Your task to perform on an android device: toggle sleep mode Image 0: 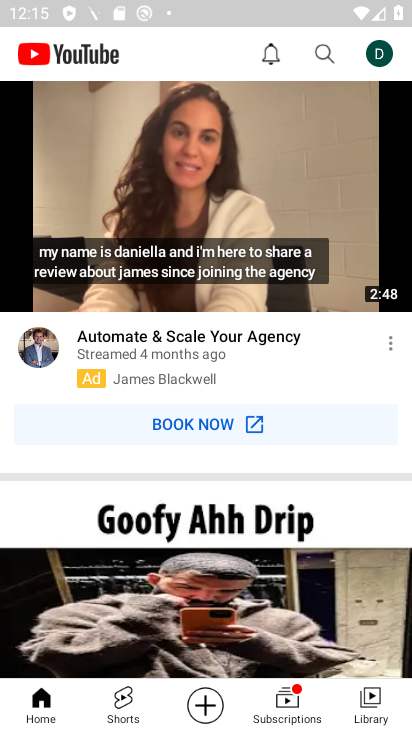
Step 0: press home button
Your task to perform on an android device: toggle sleep mode Image 1: 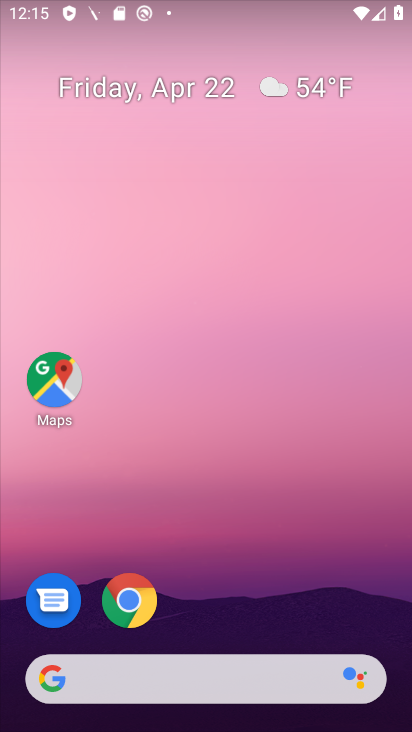
Step 1: click (389, 561)
Your task to perform on an android device: toggle sleep mode Image 2: 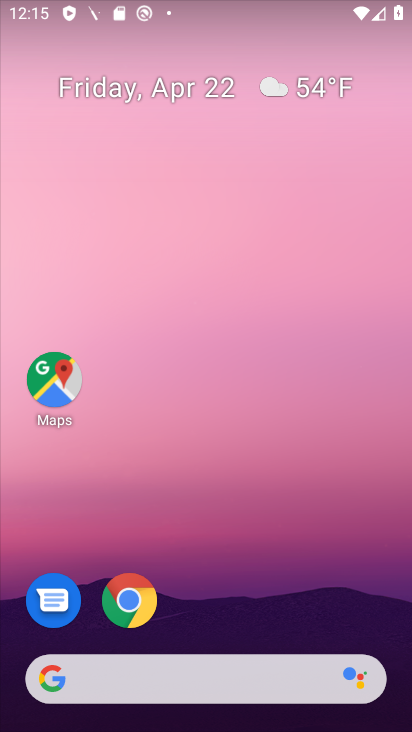
Step 2: drag from (394, 611) to (363, 142)
Your task to perform on an android device: toggle sleep mode Image 3: 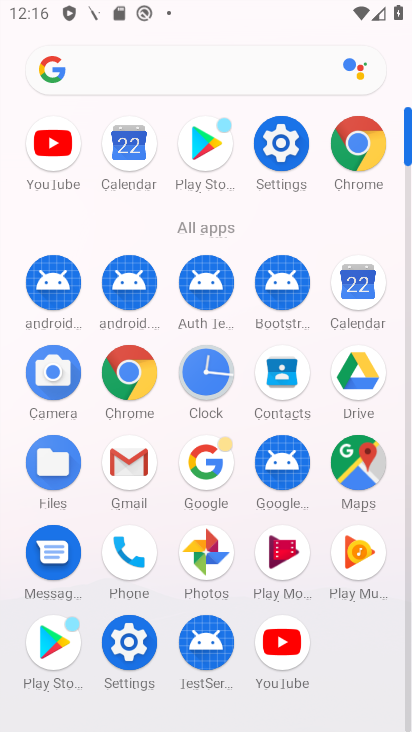
Step 3: click (280, 145)
Your task to perform on an android device: toggle sleep mode Image 4: 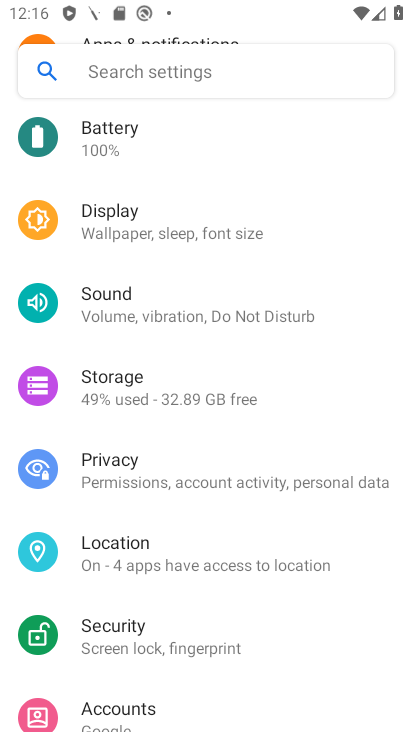
Step 4: drag from (336, 666) to (311, 158)
Your task to perform on an android device: toggle sleep mode Image 5: 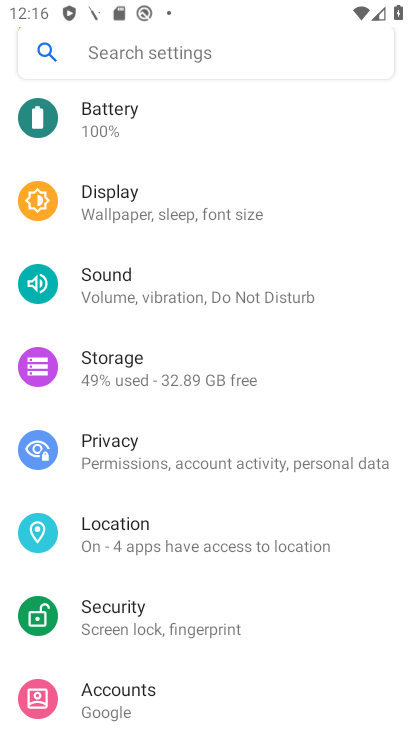
Step 5: drag from (314, 654) to (326, 267)
Your task to perform on an android device: toggle sleep mode Image 6: 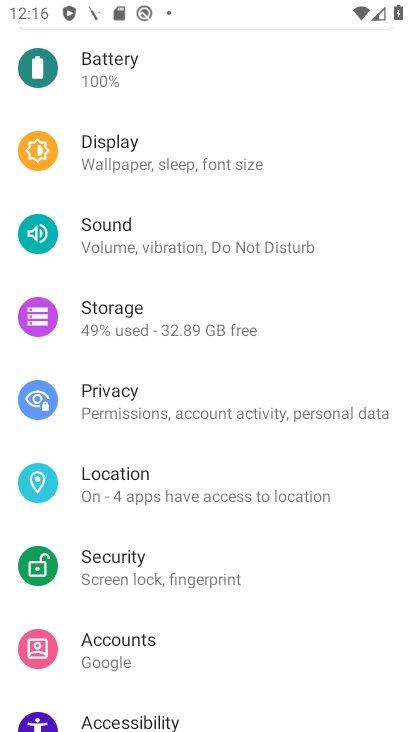
Step 6: click (97, 156)
Your task to perform on an android device: toggle sleep mode Image 7: 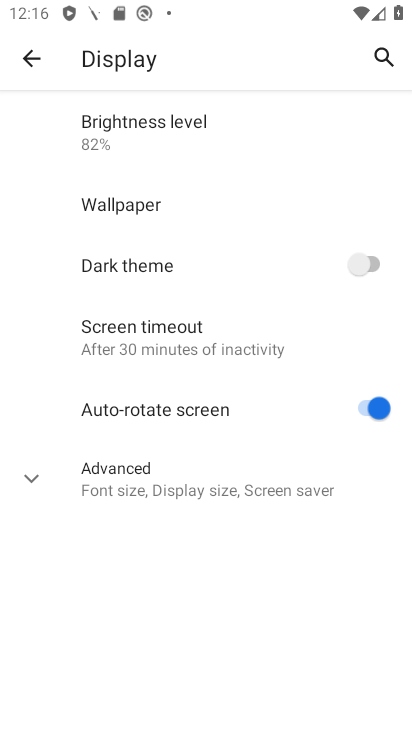
Step 7: drag from (286, 342) to (266, 657)
Your task to perform on an android device: toggle sleep mode Image 8: 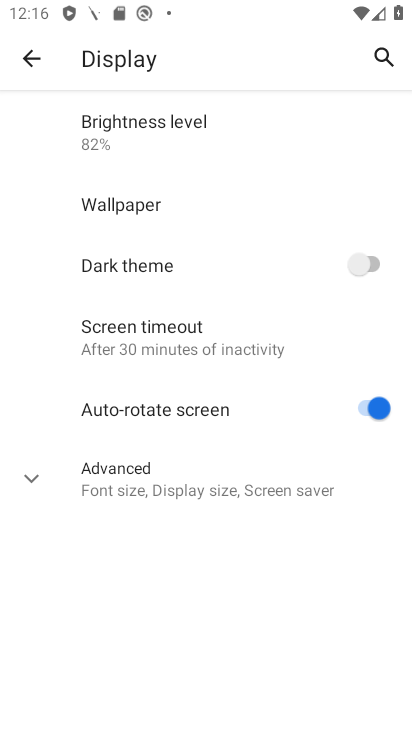
Step 8: click (152, 333)
Your task to perform on an android device: toggle sleep mode Image 9: 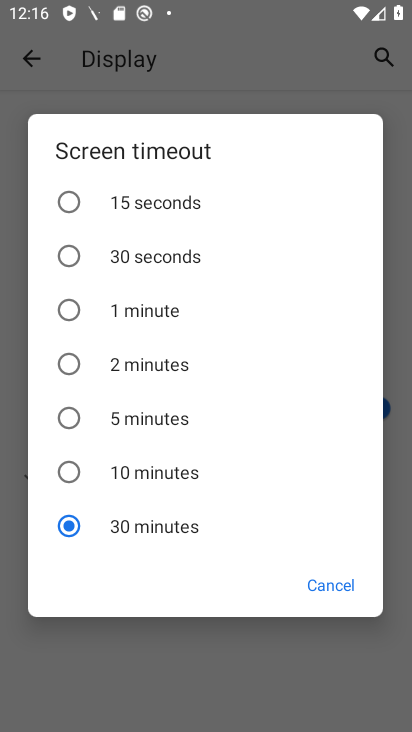
Step 9: click (67, 423)
Your task to perform on an android device: toggle sleep mode Image 10: 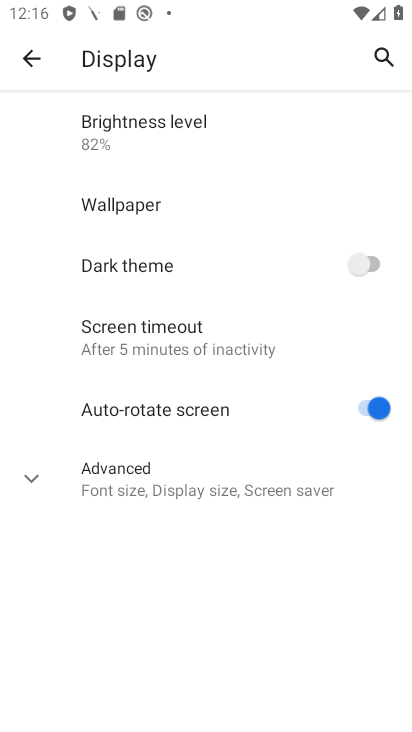
Step 10: task complete